Your task to perform on an android device: Open Chrome and go to settings Image 0: 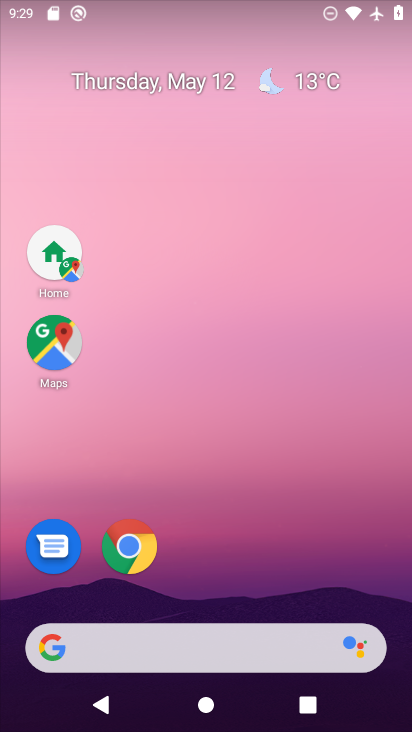
Step 0: press home button
Your task to perform on an android device: Open Chrome and go to settings Image 1: 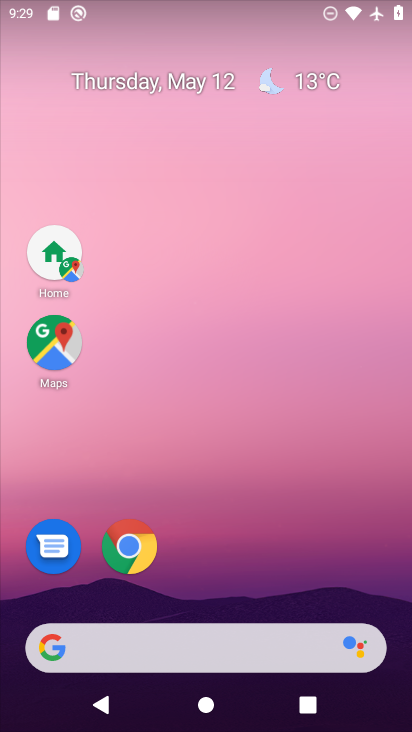
Step 1: click (137, 558)
Your task to perform on an android device: Open Chrome and go to settings Image 2: 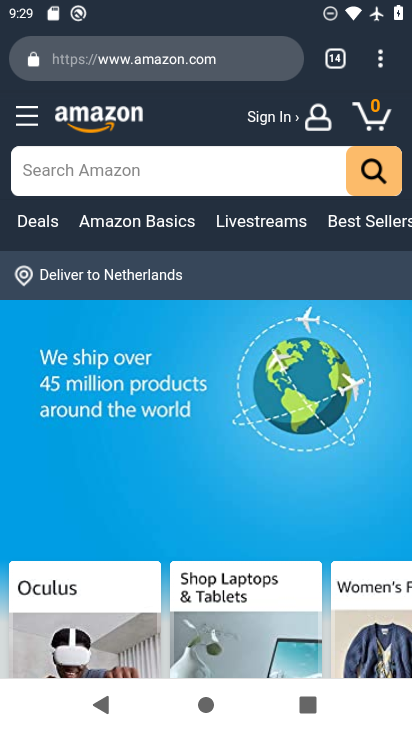
Step 2: task complete